Your task to perform on an android device: Open the Play Movies app and select the watchlist tab. Image 0: 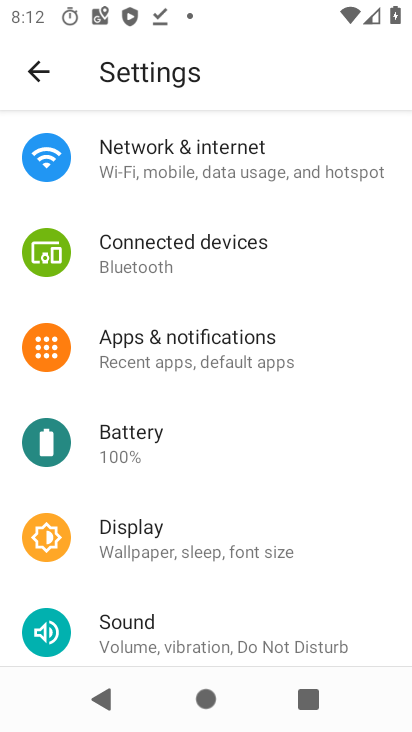
Step 0: press home button
Your task to perform on an android device: Open the Play Movies app and select the watchlist tab. Image 1: 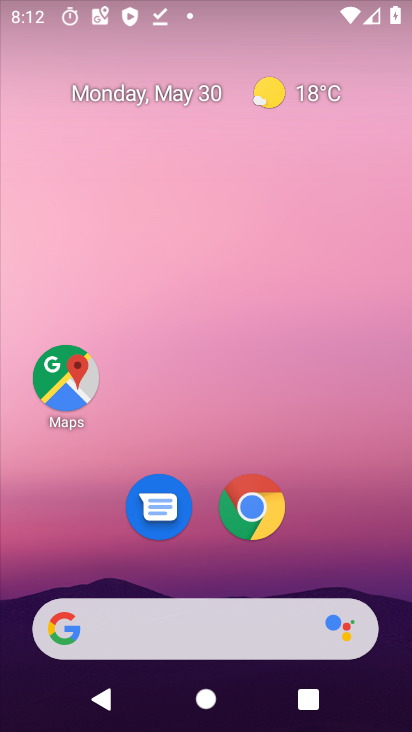
Step 1: drag from (349, 458) to (338, 213)
Your task to perform on an android device: Open the Play Movies app and select the watchlist tab. Image 2: 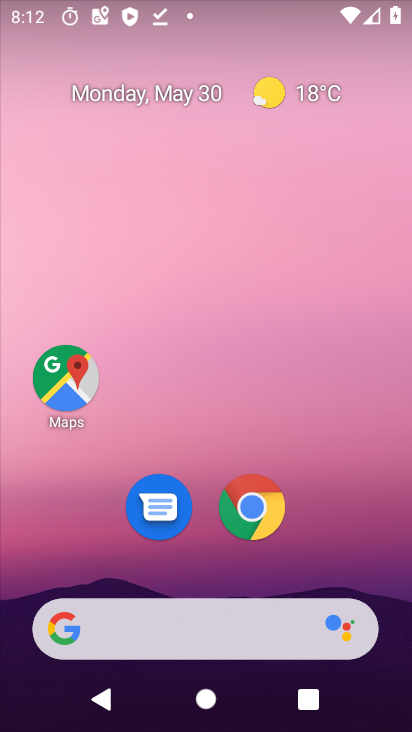
Step 2: drag from (314, 528) to (340, 138)
Your task to perform on an android device: Open the Play Movies app and select the watchlist tab. Image 3: 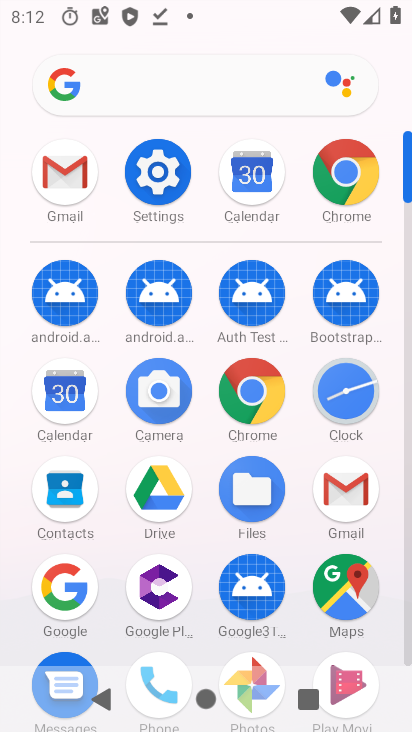
Step 3: drag from (352, 620) to (301, 207)
Your task to perform on an android device: Open the Play Movies app and select the watchlist tab. Image 4: 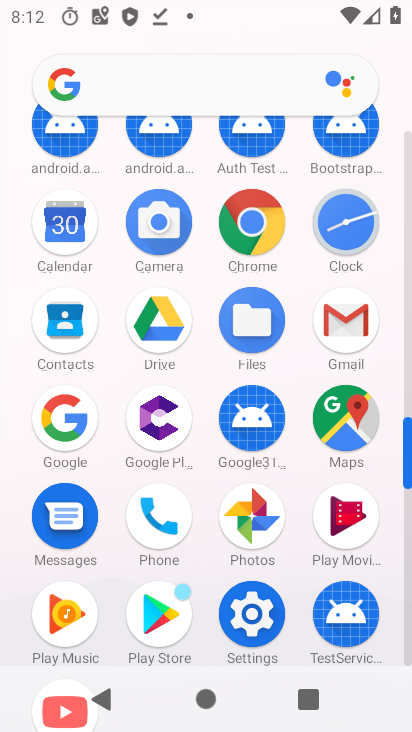
Step 4: click (338, 544)
Your task to perform on an android device: Open the Play Movies app and select the watchlist tab. Image 5: 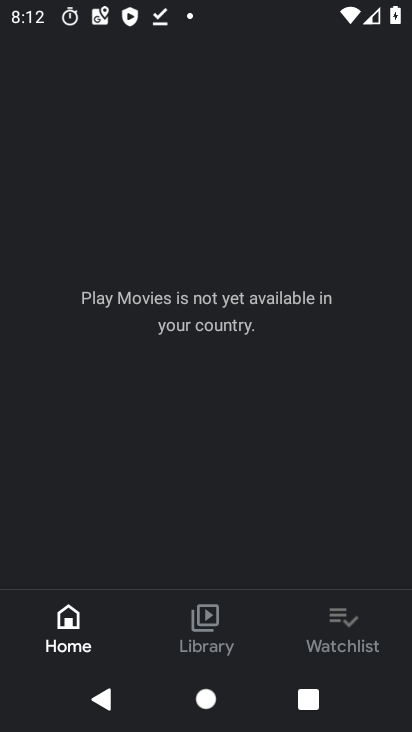
Step 5: click (356, 639)
Your task to perform on an android device: Open the Play Movies app and select the watchlist tab. Image 6: 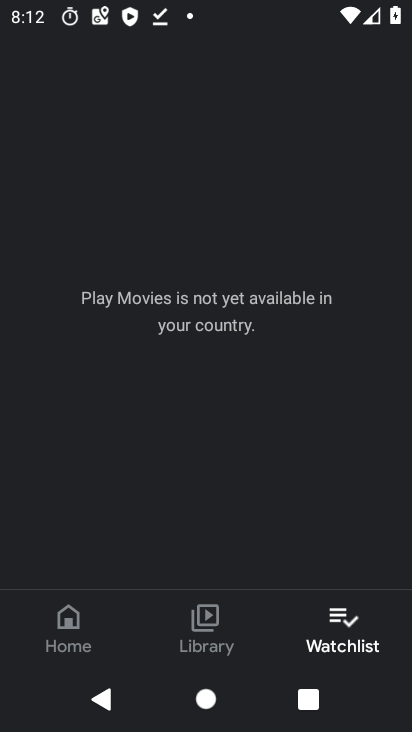
Step 6: task complete